Your task to perform on an android device: turn off translation in the chrome app Image 0: 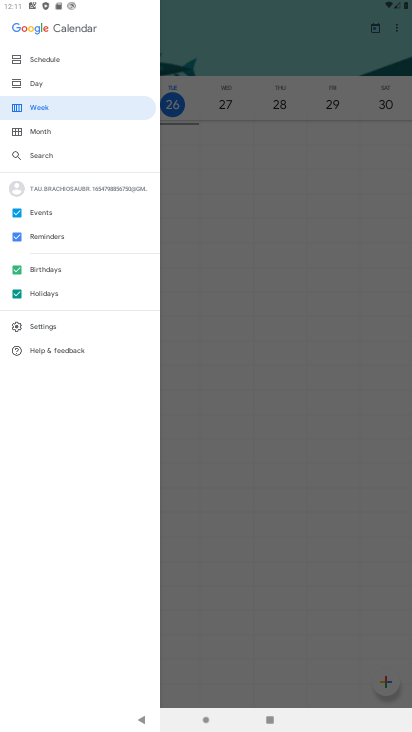
Step 0: task impossible